Your task to perform on an android device: open app "Fetch Rewards" Image 0: 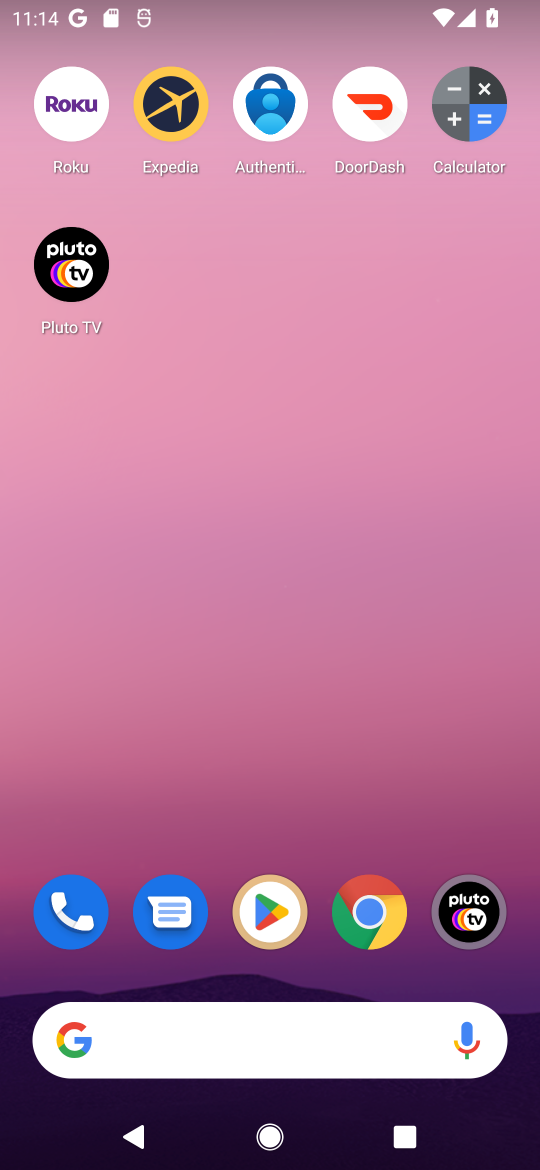
Step 0: click (287, 901)
Your task to perform on an android device: open app "Fetch Rewards" Image 1: 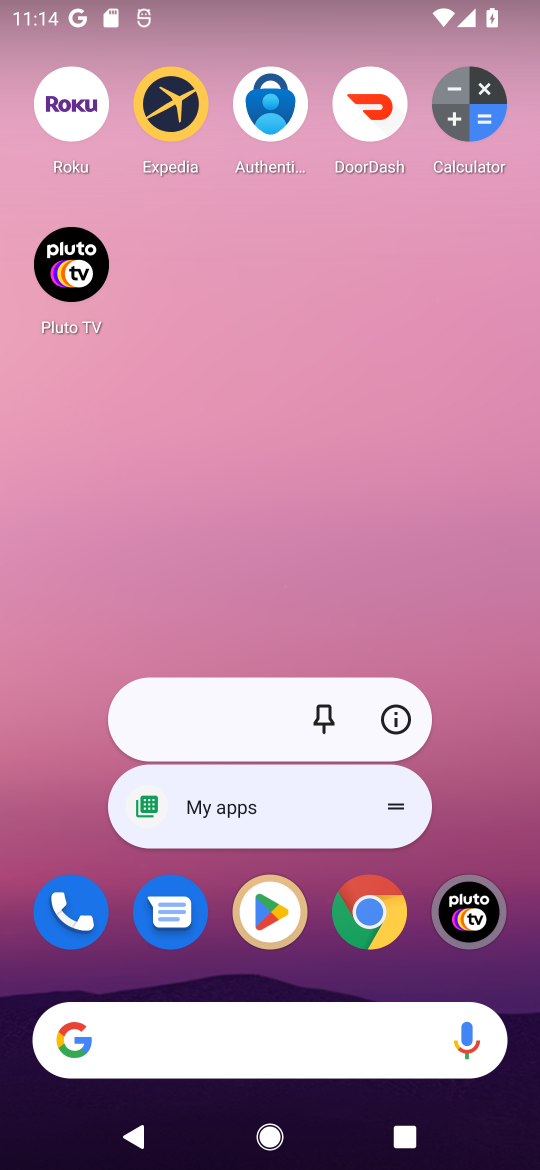
Step 1: click (256, 906)
Your task to perform on an android device: open app "Fetch Rewards" Image 2: 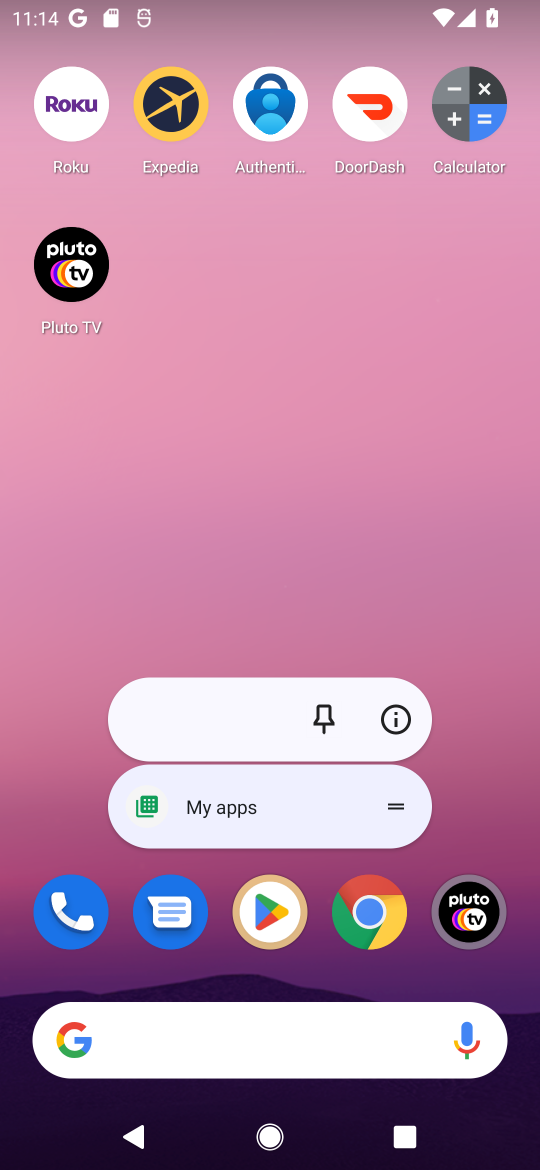
Step 2: click (256, 931)
Your task to perform on an android device: open app "Fetch Rewards" Image 3: 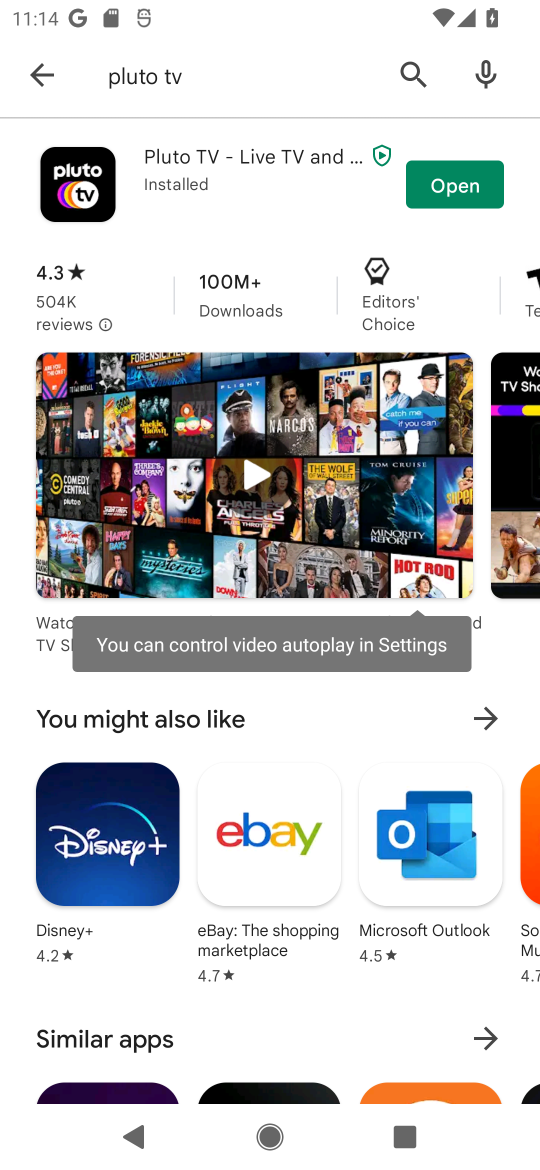
Step 3: click (412, 79)
Your task to perform on an android device: open app "Fetch Rewards" Image 4: 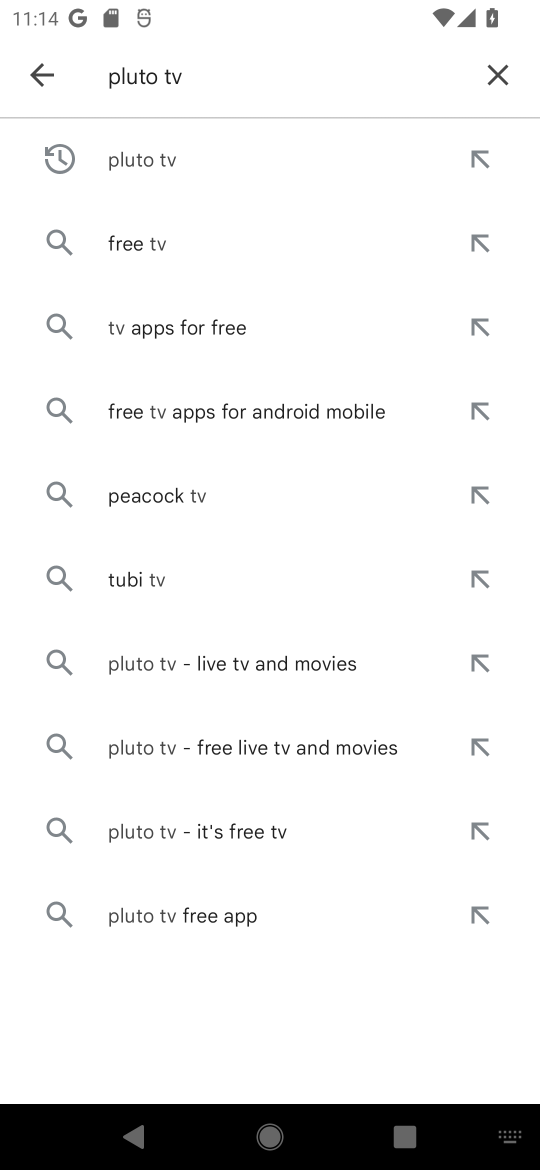
Step 4: click (502, 79)
Your task to perform on an android device: open app "Fetch Rewards" Image 5: 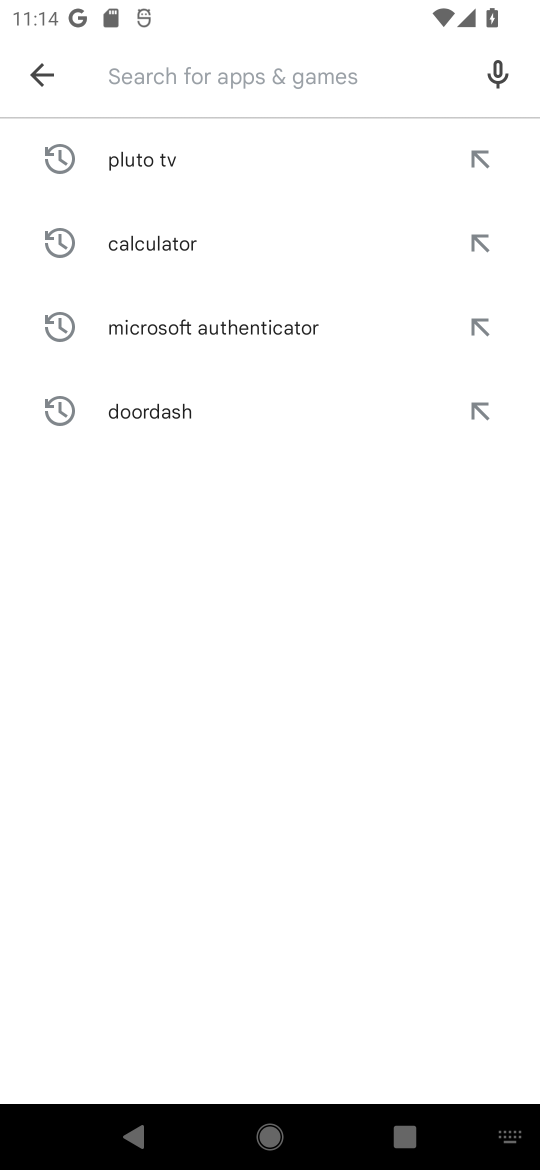
Step 5: click (126, 82)
Your task to perform on an android device: open app "Fetch Rewards" Image 6: 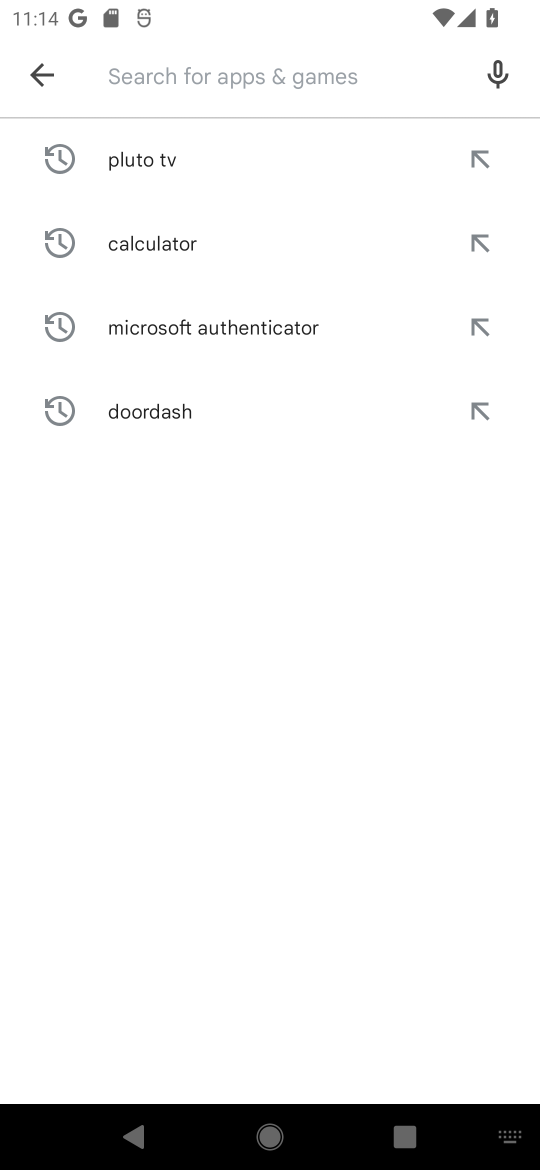
Step 6: type "Fetch Rewards"
Your task to perform on an android device: open app "Fetch Rewards" Image 7: 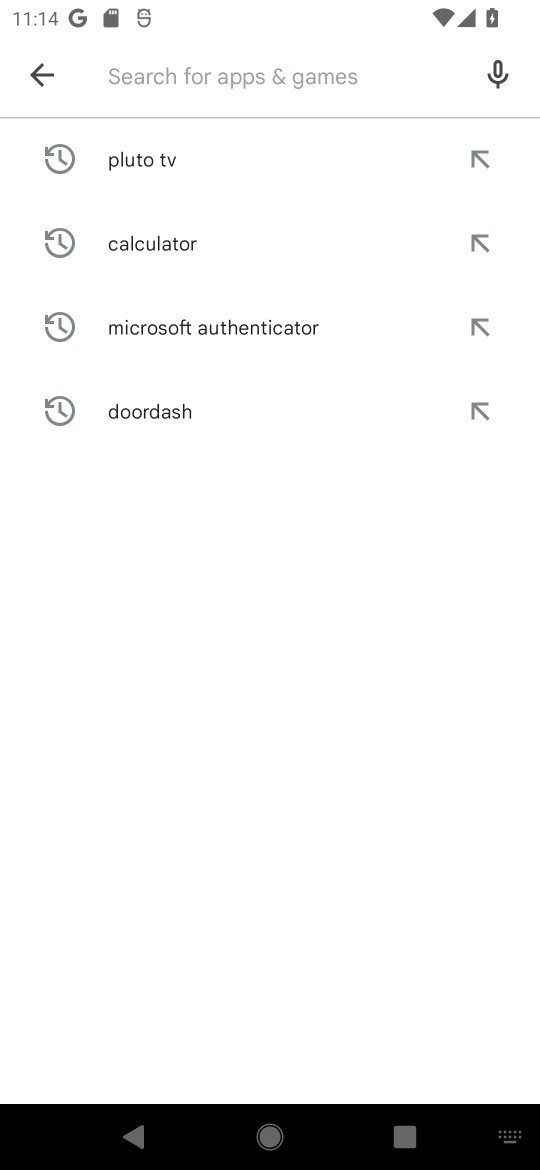
Step 7: click (386, 661)
Your task to perform on an android device: open app "Fetch Rewards" Image 8: 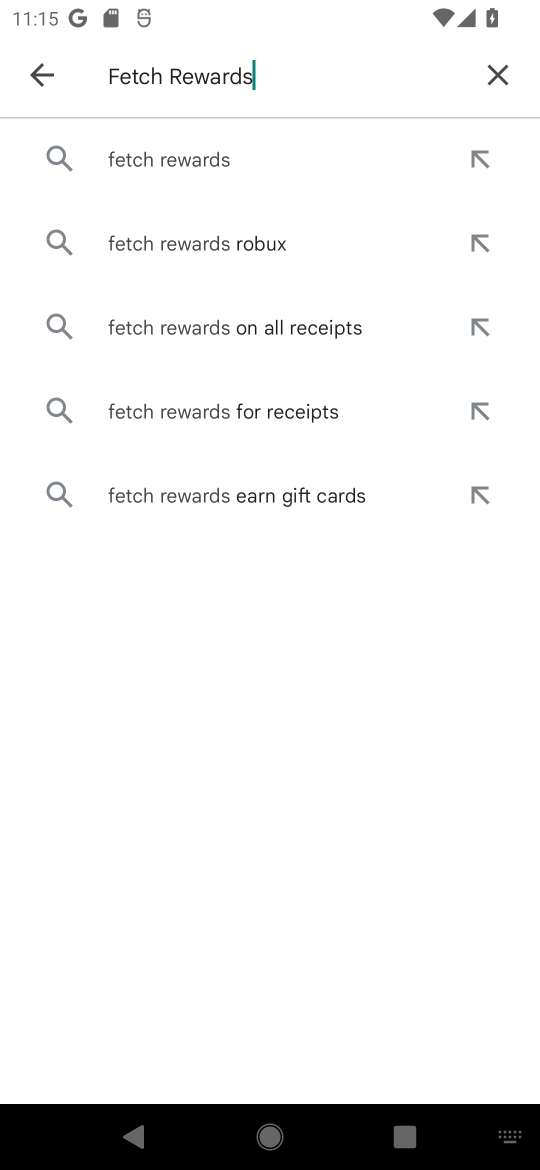
Step 8: click (200, 156)
Your task to perform on an android device: open app "Fetch Rewards" Image 9: 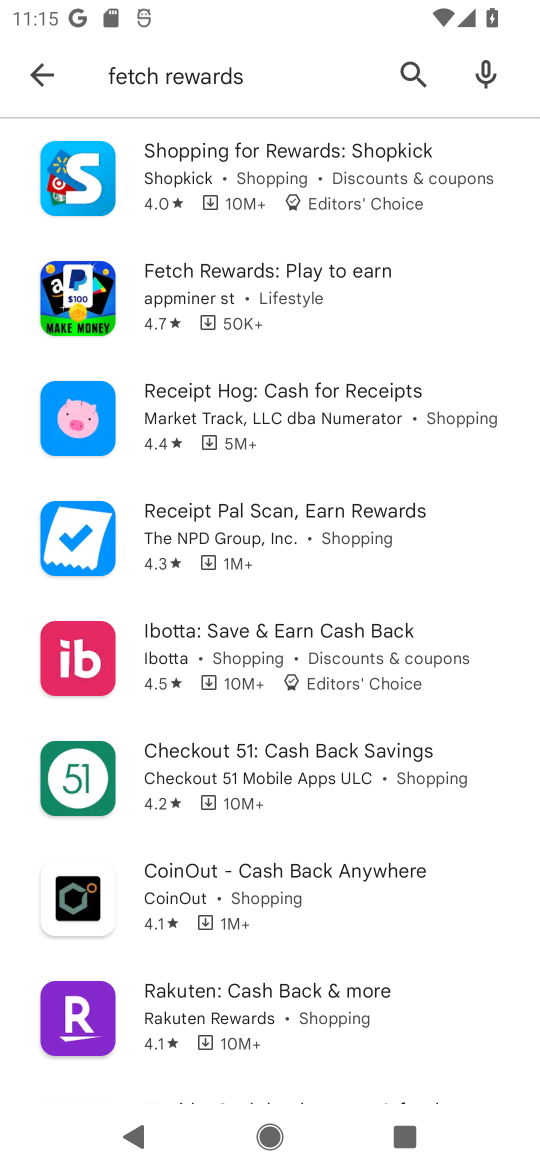
Step 9: click (253, 289)
Your task to perform on an android device: open app "Fetch Rewards" Image 10: 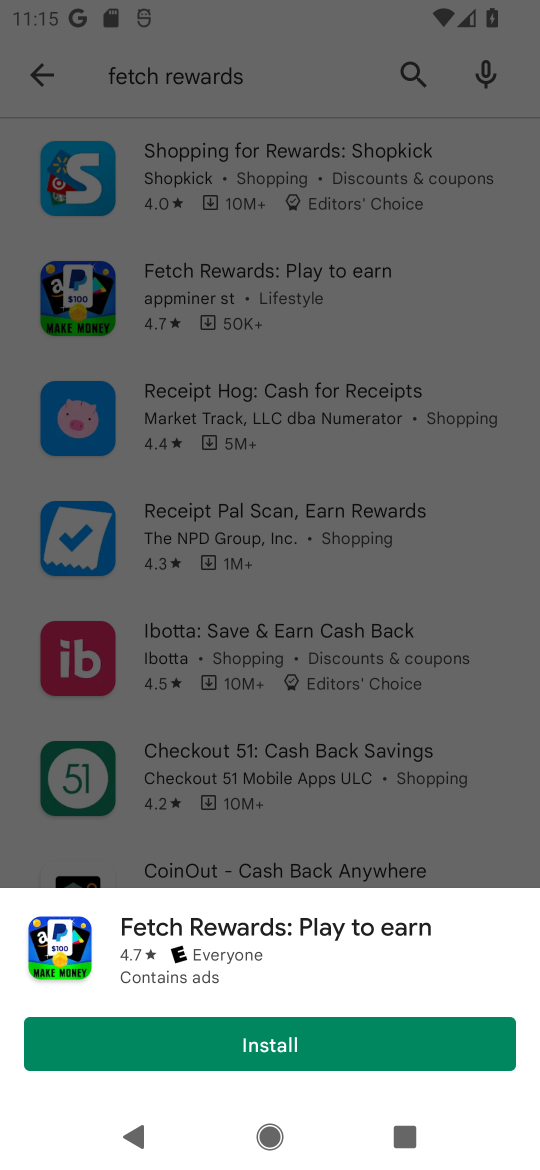
Step 10: task complete